Your task to perform on an android device: Go to Reddit.com Image 0: 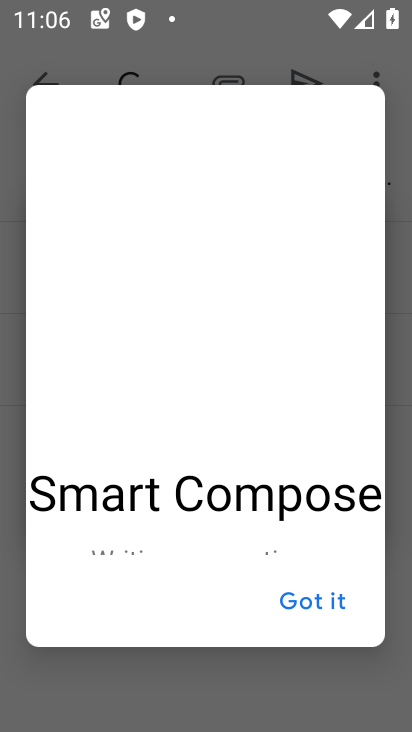
Step 0: press home button
Your task to perform on an android device: Go to Reddit.com Image 1: 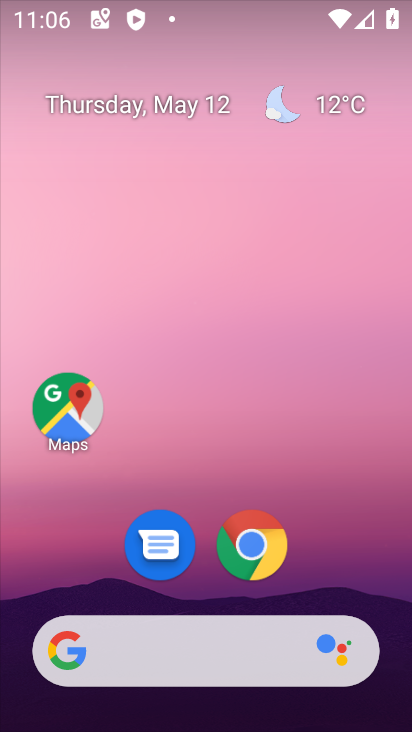
Step 1: drag from (207, 593) to (234, 152)
Your task to perform on an android device: Go to Reddit.com Image 2: 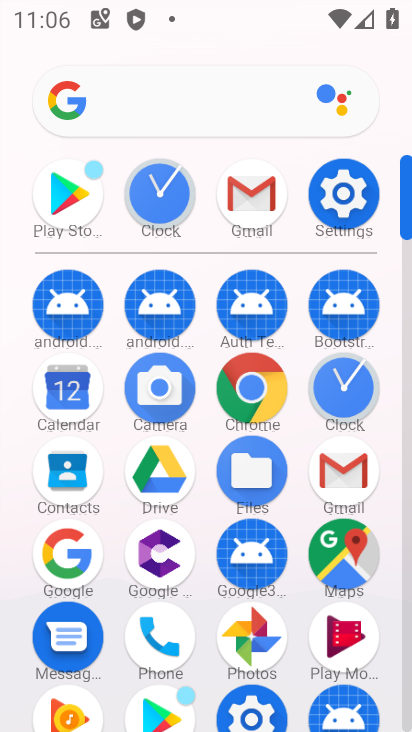
Step 2: click (250, 377)
Your task to perform on an android device: Go to Reddit.com Image 3: 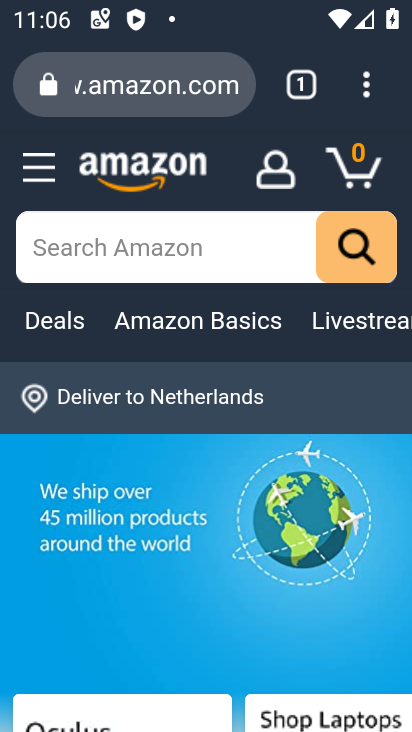
Step 3: click (302, 100)
Your task to perform on an android device: Go to Reddit.com Image 4: 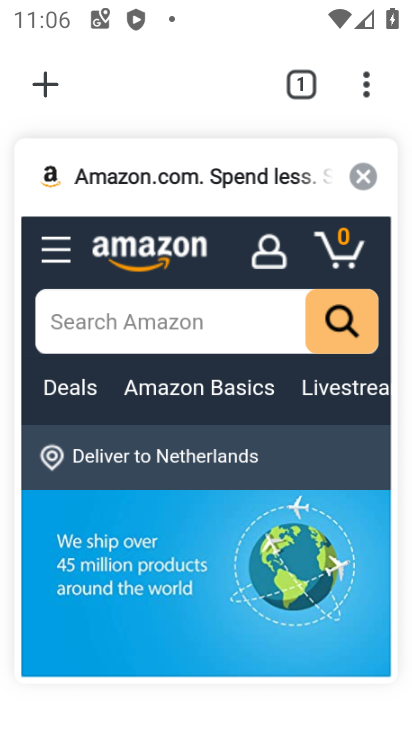
Step 4: click (363, 178)
Your task to perform on an android device: Go to Reddit.com Image 5: 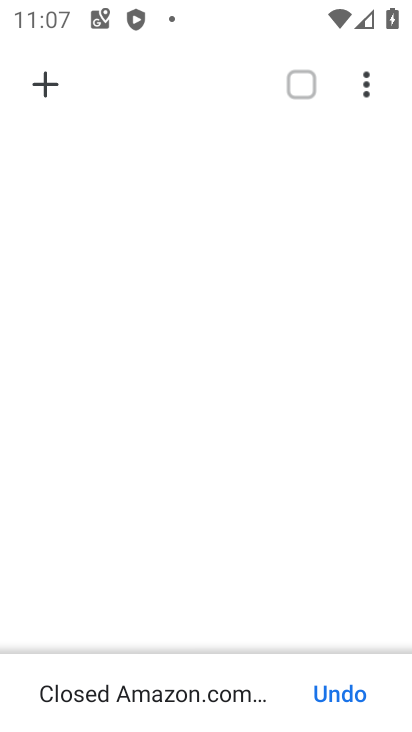
Step 5: click (52, 87)
Your task to perform on an android device: Go to Reddit.com Image 6: 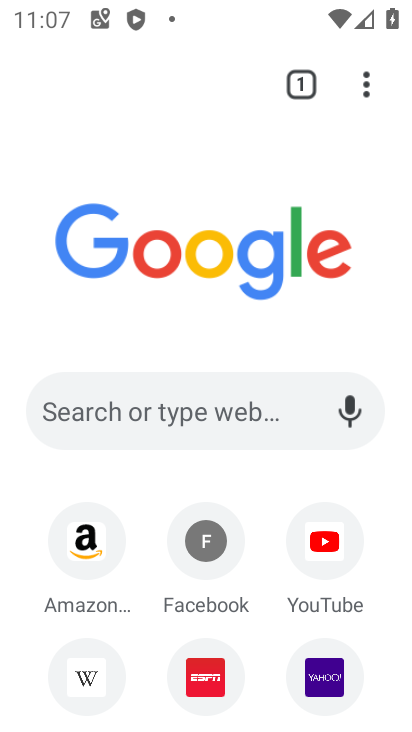
Step 6: drag from (258, 634) to (286, 292)
Your task to perform on an android device: Go to Reddit.com Image 7: 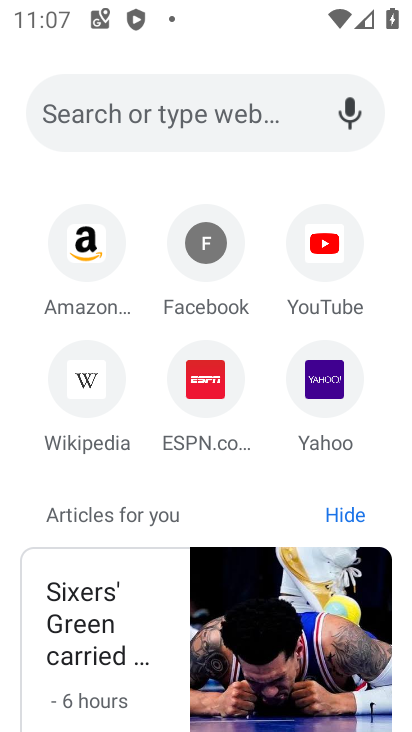
Step 7: click (147, 102)
Your task to perform on an android device: Go to Reddit.com Image 8: 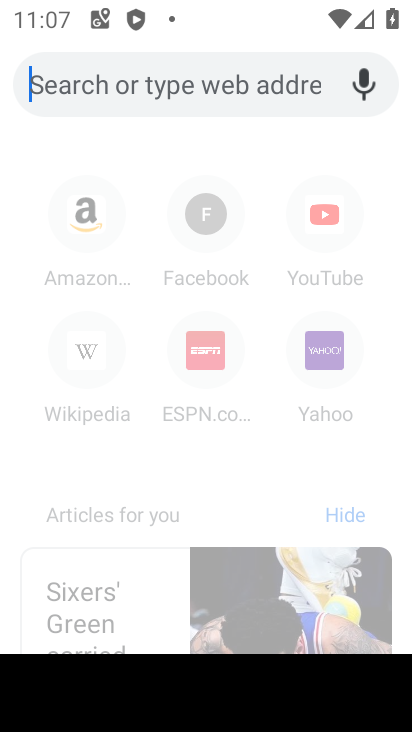
Step 8: type "reddit"
Your task to perform on an android device: Go to Reddit.com Image 9: 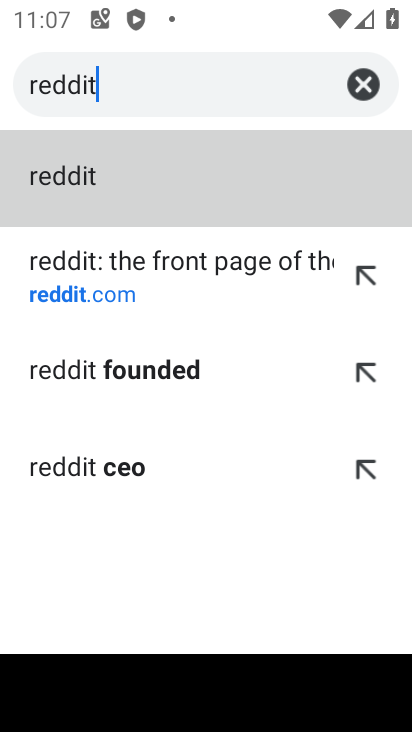
Step 9: click (151, 276)
Your task to perform on an android device: Go to Reddit.com Image 10: 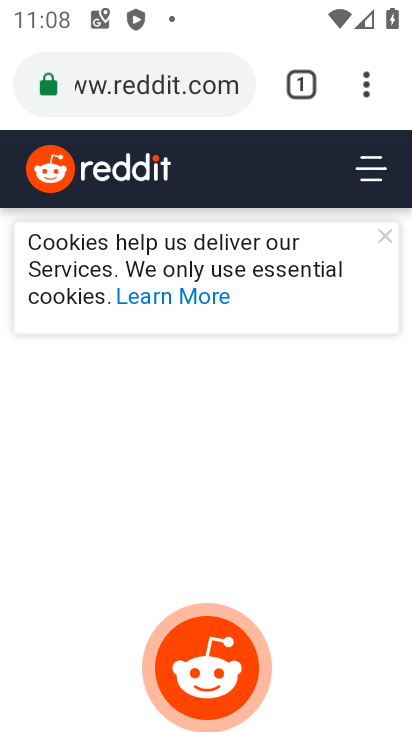
Step 10: click (386, 232)
Your task to perform on an android device: Go to Reddit.com Image 11: 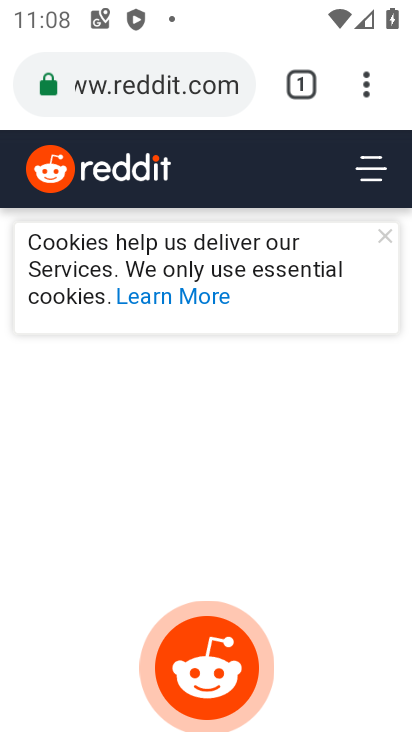
Step 11: task complete